Your task to perform on an android device: Go to Reddit.com Image 0: 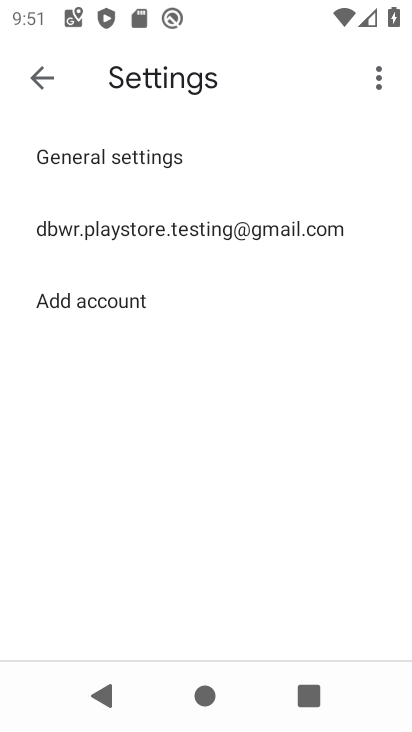
Step 0: click (282, 226)
Your task to perform on an android device: Go to Reddit.com Image 1: 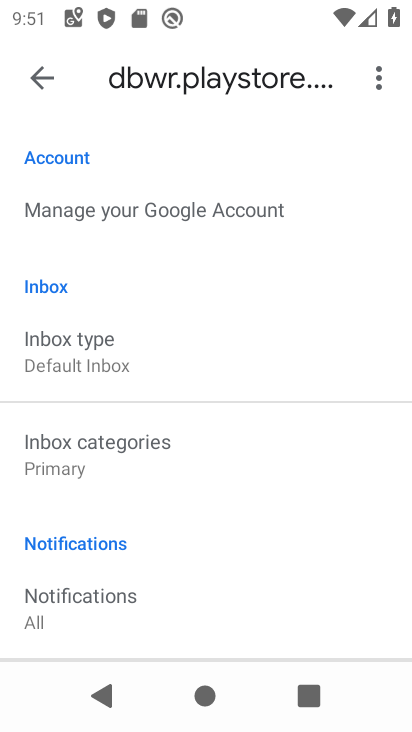
Step 1: press home button
Your task to perform on an android device: Go to Reddit.com Image 2: 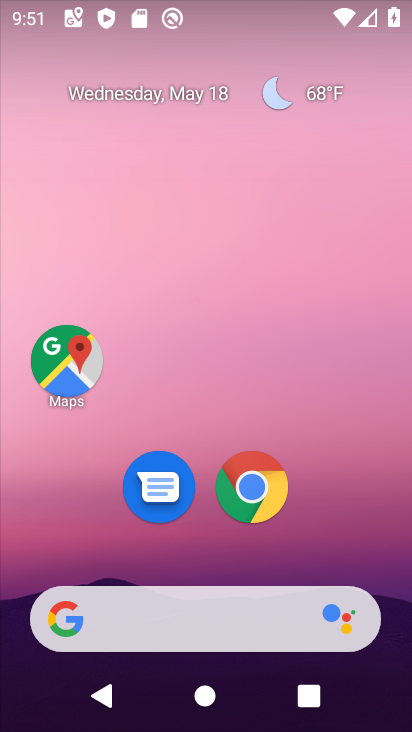
Step 2: drag from (384, 420) to (353, 59)
Your task to perform on an android device: Go to Reddit.com Image 3: 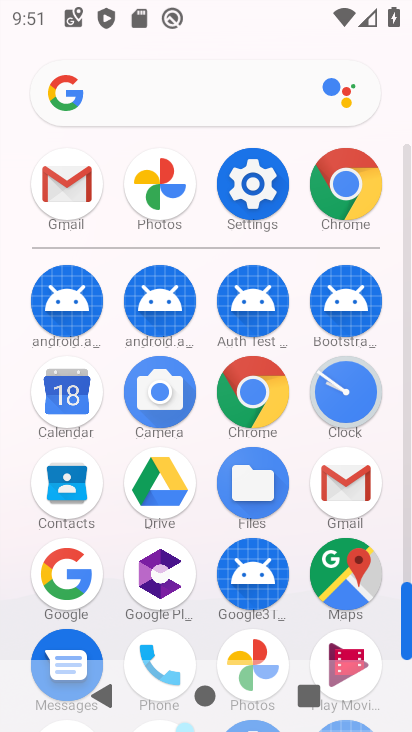
Step 3: click (325, 191)
Your task to perform on an android device: Go to Reddit.com Image 4: 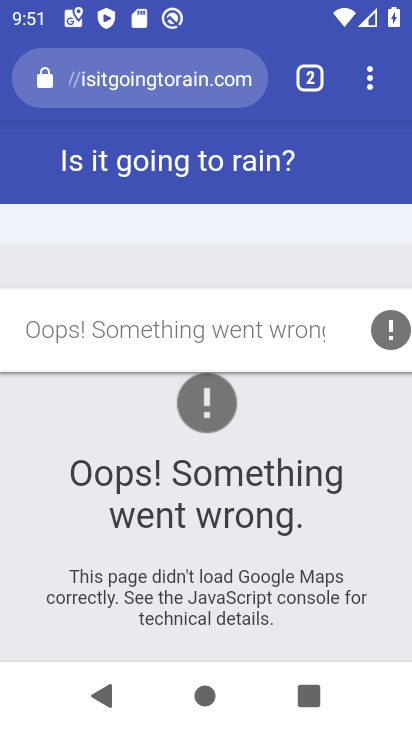
Step 4: click (192, 83)
Your task to perform on an android device: Go to Reddit.com Image 5: 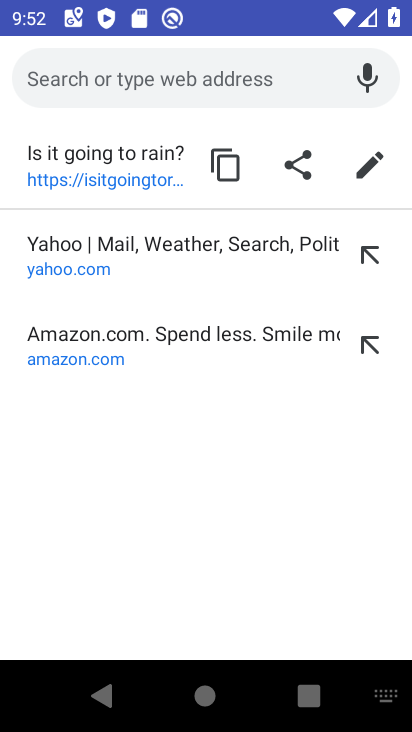
Step 5: type "reddit.com"
Your task to perform on an android device: Go to Reddit.com Image 6: 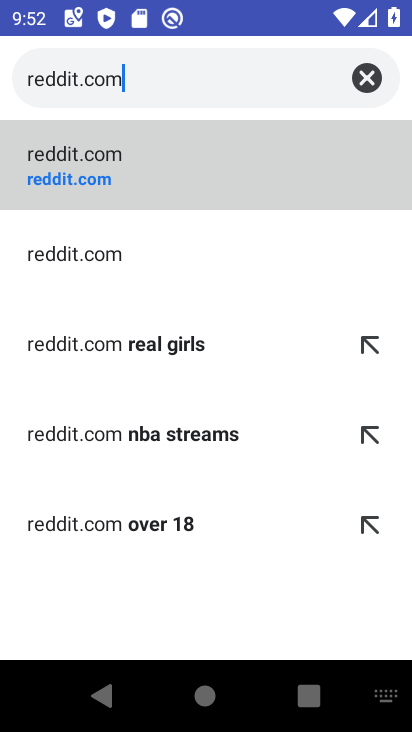
Step 6: click (143, 176)
Your task to perform on an android device: Go to Reddit.com Image 7: 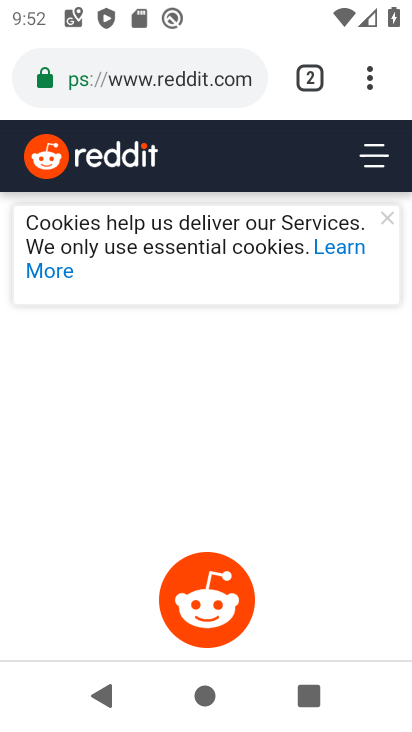
Step 7: task complete